Your task to perform on an android device: remove spam from my inbox in the gmail app Image 0: 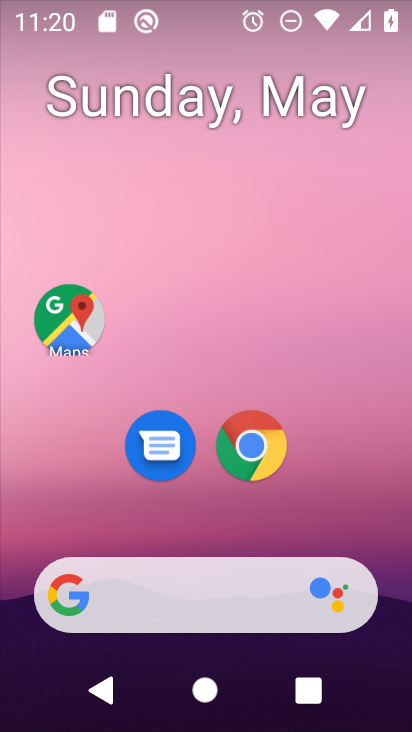
Step 0: drag from (236, 526) to (274, 201)
Your task to perform on an android device: remove spam from my inbox in the gmail app Image 1: 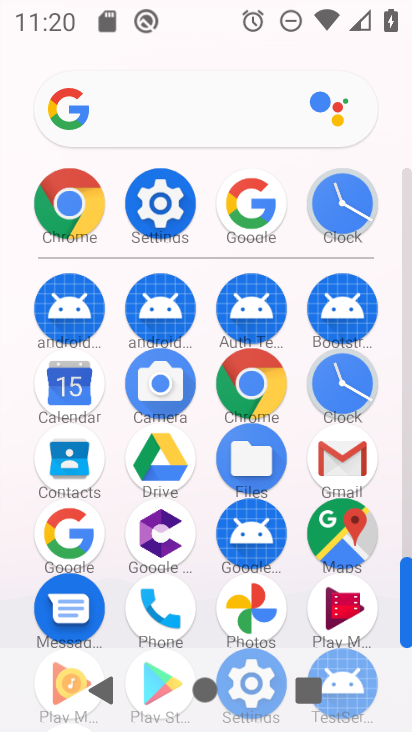
Step 1: click (353, 468)
Your task to perform on an android device: remove spam from my inbox in the gmail app Image 2: 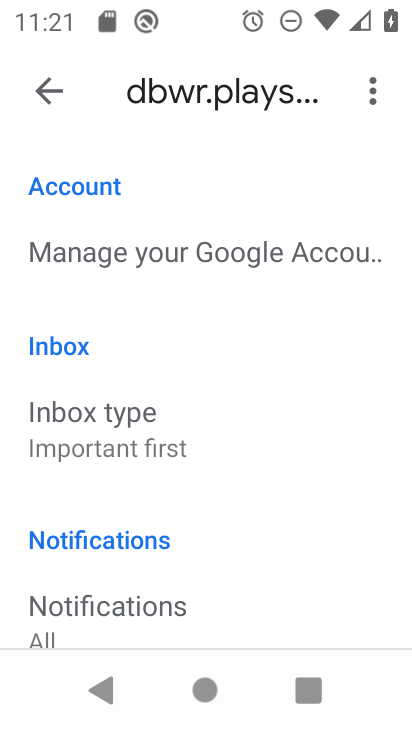
Step 2: click (52, 105)
Your task to perform on an android device: remove spam from my inbox in the gmail app Image 3: 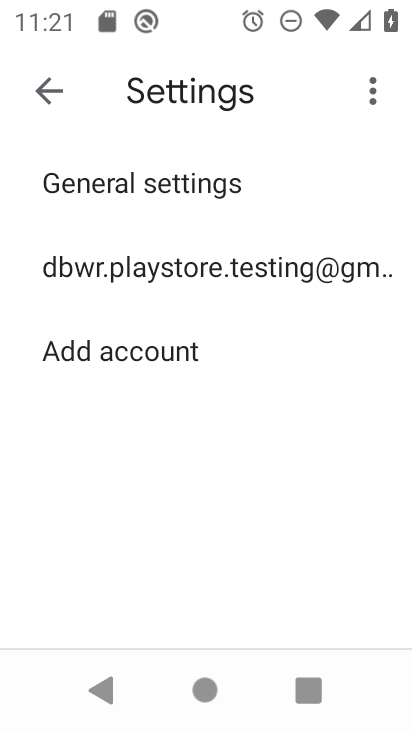
Step 3: click (105, 202)
Your task to perform on an android device: remove spam from my inbox in the gmail app Image 4: 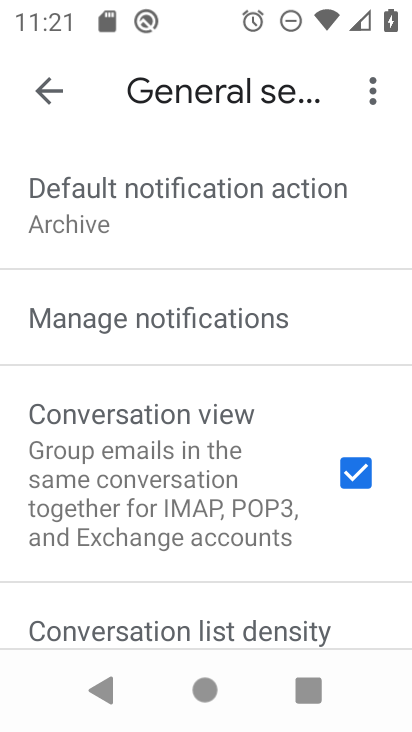
Step 4: task complete